Your task to perform on an android device: stop showing notifications on the lock screen Image 0: 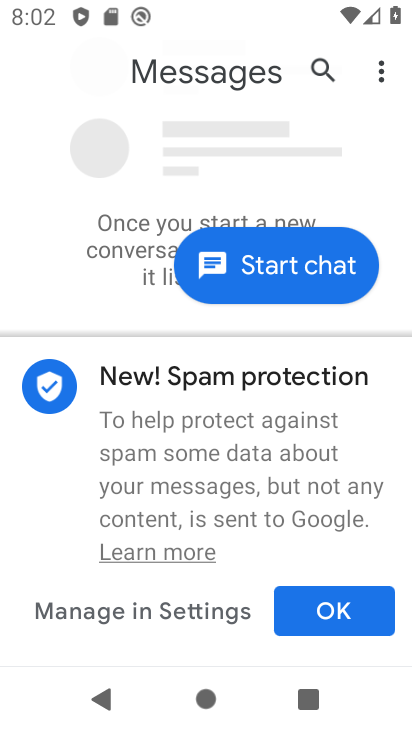
Step 0: press home button
Your task to perform on an android device: stop showing notifications on the lock screen Image 1: 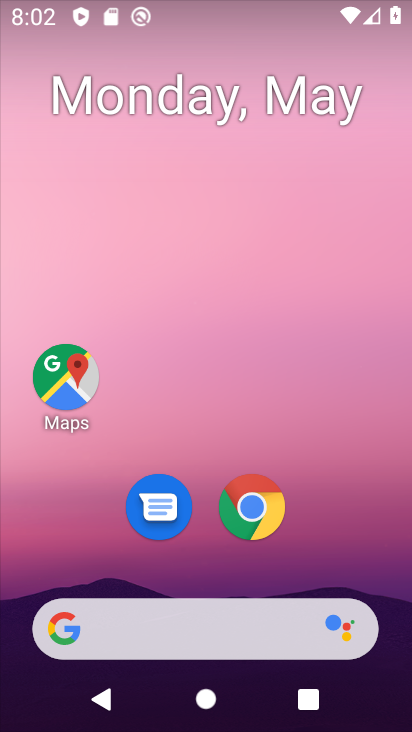
Step 1: drag from (225, 575) to (312, 30)
Your task to perform on an android device: stop showing notifications on the lock screen Image 2: 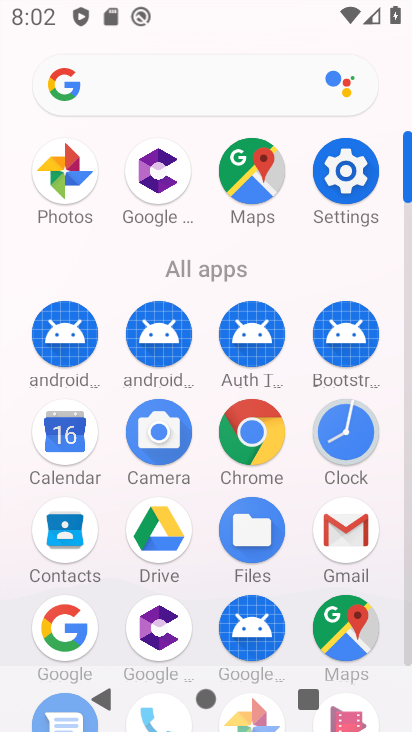
Step 2: drag from (202, 550) to (272, 200)
Your task to perform on an android device: stop showing notifications on the lock screen Image 3: 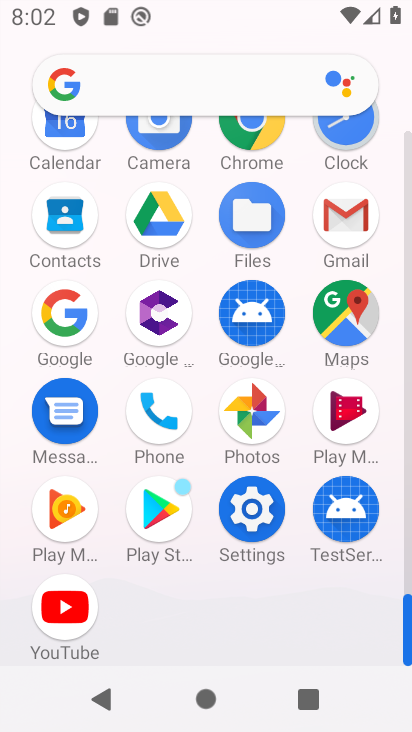
Step 3: click (254, 515)
Your task to perform on an android device: stop showing notifications on the lock screen Image 4: 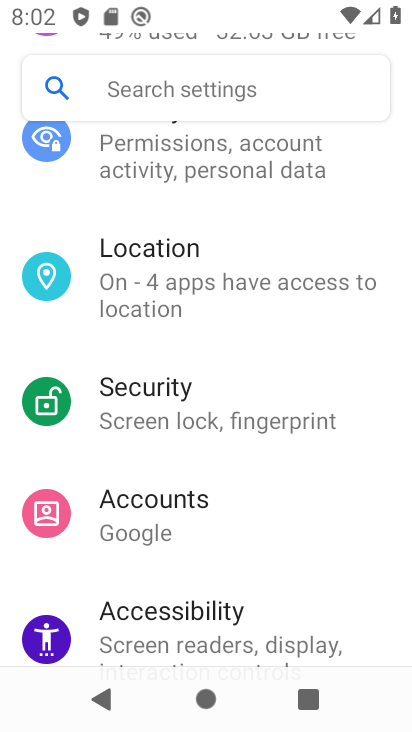
Step 4: drag from (256, 277) to (231, 709)
Your task to perform on an android device: stop showing notifications on the lock screen Image 5: 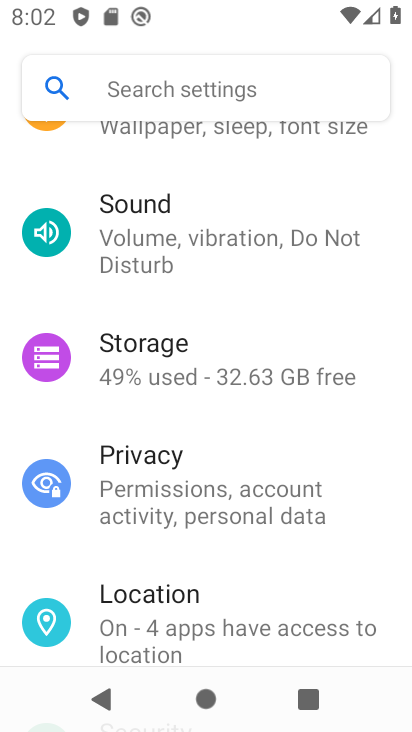
Step 5: drag from (232, 279) to (192, 682)
Your task to perform on an android device: stop showing notifications on the lock screen Image 6: 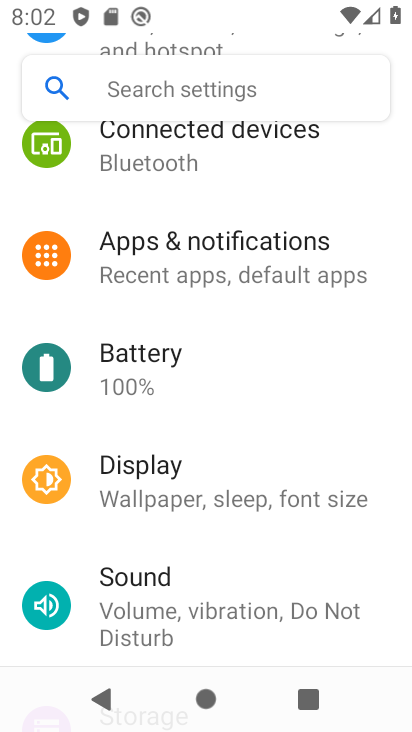
Step 6: click (210, 280)
Your task to perform on an android device: stop showing notifications on the lock screen Image 7: 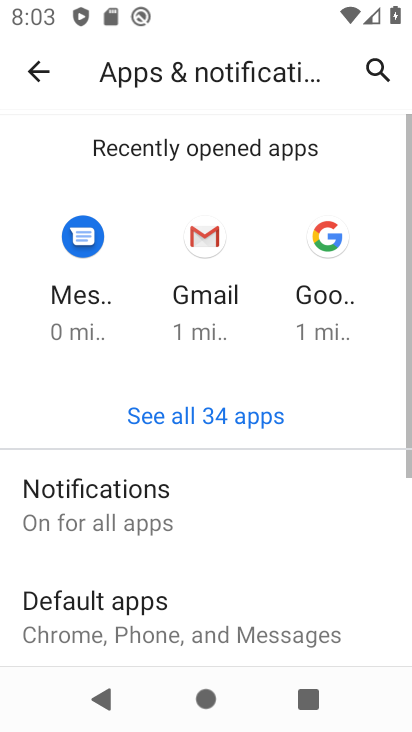
Step 7: click (155, 520)
Your task to perform on an android device: stop showing notifications on the lock screen Image 8: 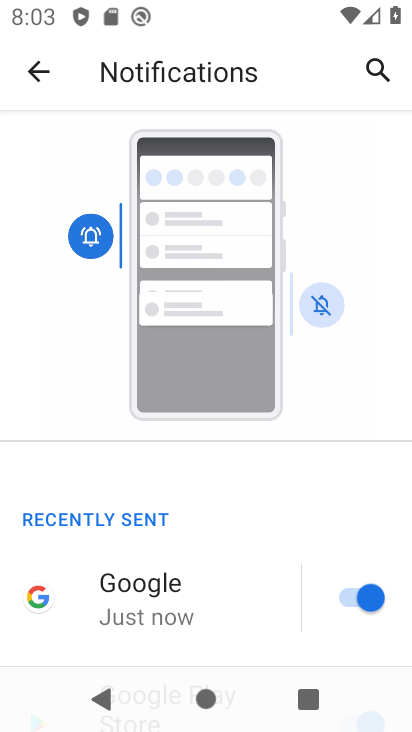
Step 8: drag from (134, 585) to (222, 136)
Your task to perform on an android device: stop showing notifications on the lock screen Image 9: 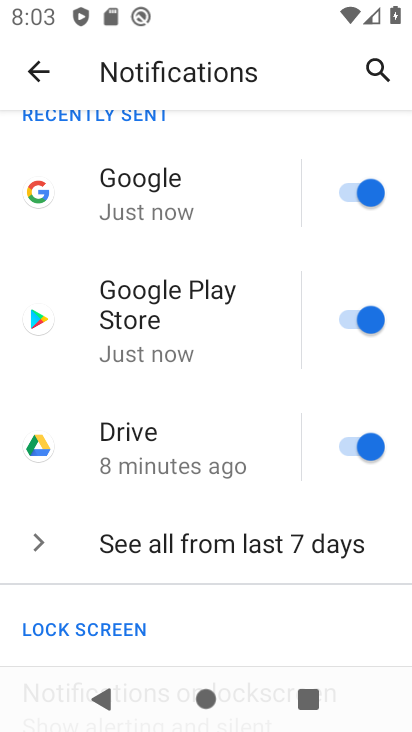
Step 9: drag from (154, 499) to (199, 214)
Your task to perform on an android device: stop showing notifications on the lock screen Image 10: 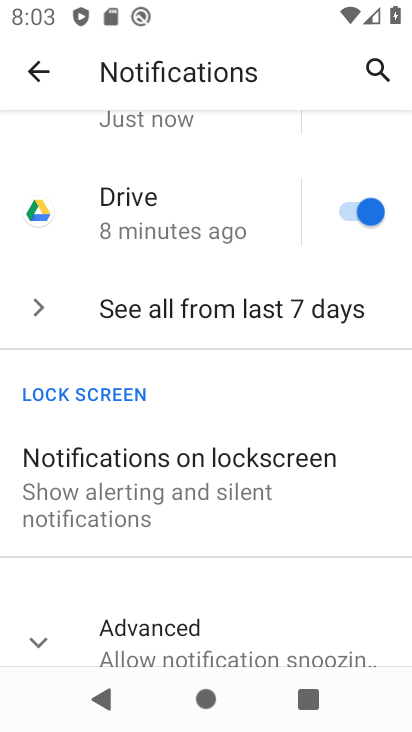
Step 10: click (113, 468)
Your task to perform on an android device: stop showing notifications on the lock screen Image 11: 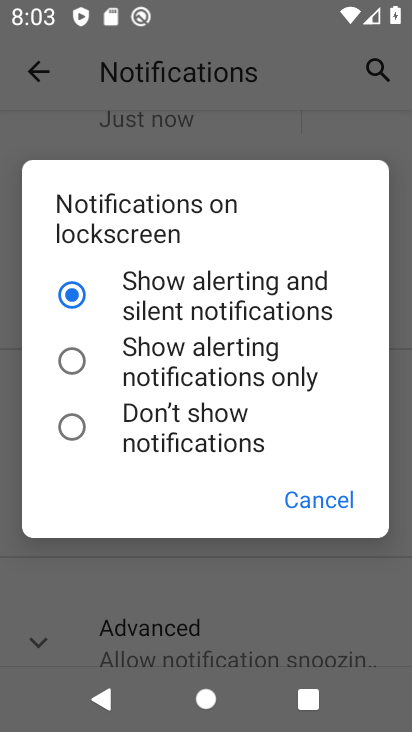
Step 11: click (77, 431)
Your task to perform on an android device: stop showing notifications on the lock screen Image 12: 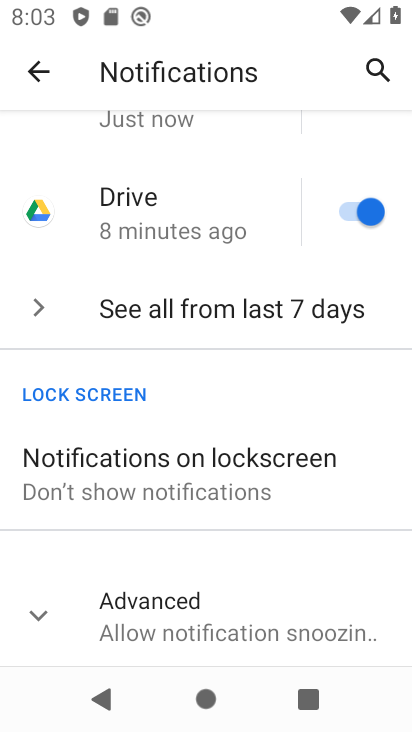
Step 12: task complete